Your task to perform on an android device: Go to Wikipedia Image 0: 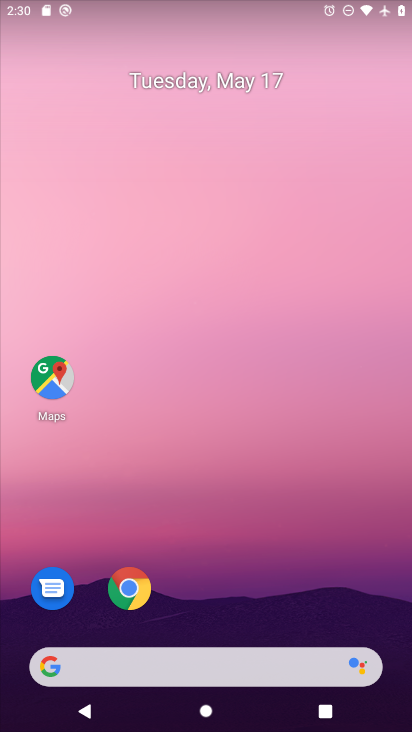
Step 0: click (136, 601)
Your task to perform on an android device: Go to Wikipedia Image 1: 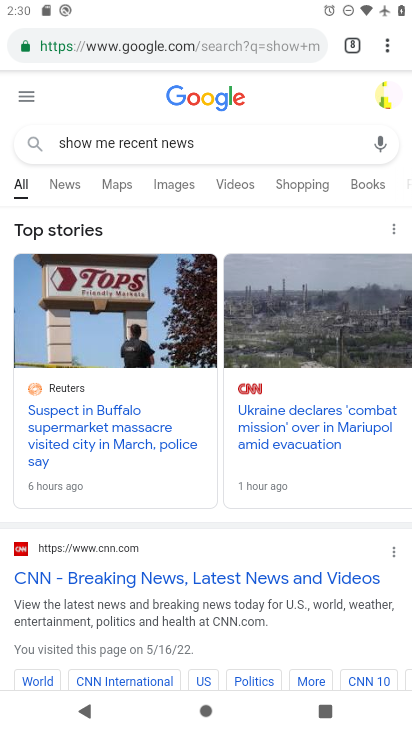
Step 1: click (347, 44)
Your task to perform on an android device: Go to Wikipedia Image 2: 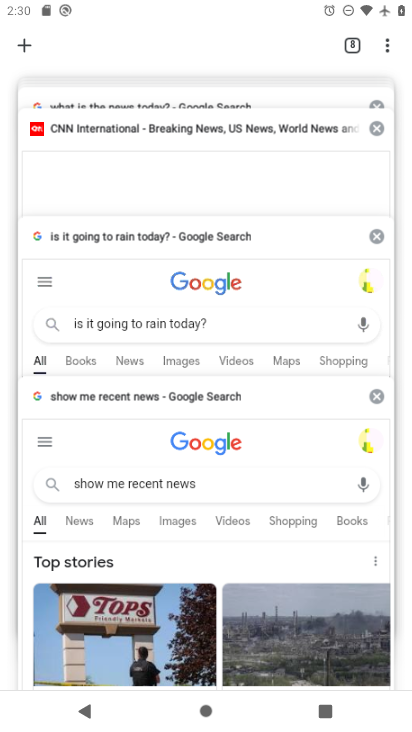
Step 2: drag from (135, 279) to (170, 528)
Your task to perform on an android device: Go to Wikipedia Image 3: 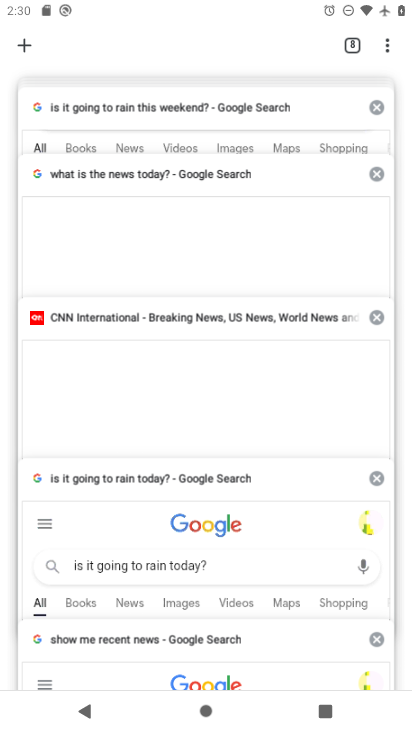
Step 3: drag from (170, 161) to (176, 496)
Your task to perform on an android device: Go to Wikipedia Image 4: 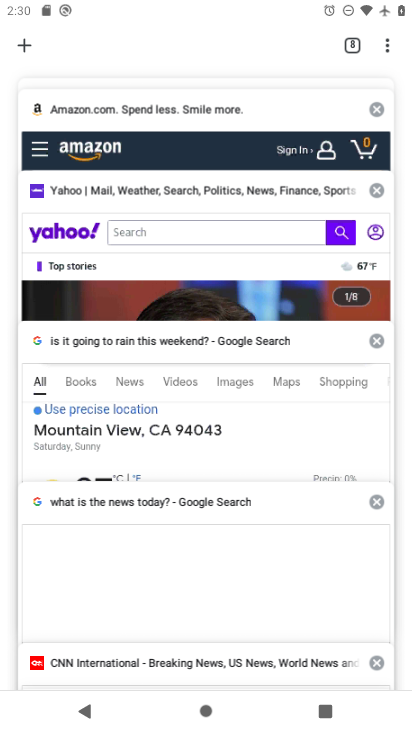
Step 4: drag from (157, 124) to (152, 421)
Your task to perform on an android device: Go to Wikipedia Image 5: 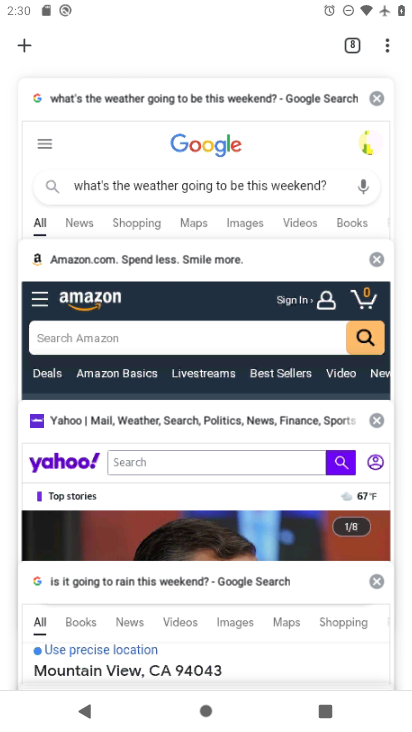
Step 5: click (26, 42)
Your task to perform on an android device: Go to Wikipedia Image 6: 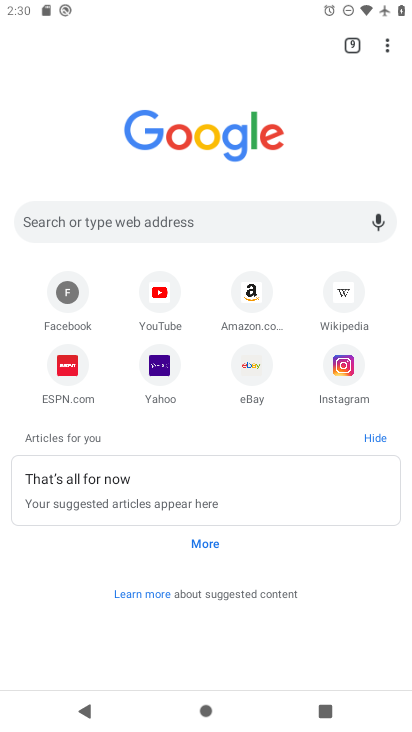
Step 6: click (327, 294)
Your task to perform on an android device: Go to Wikipedia Image 7: 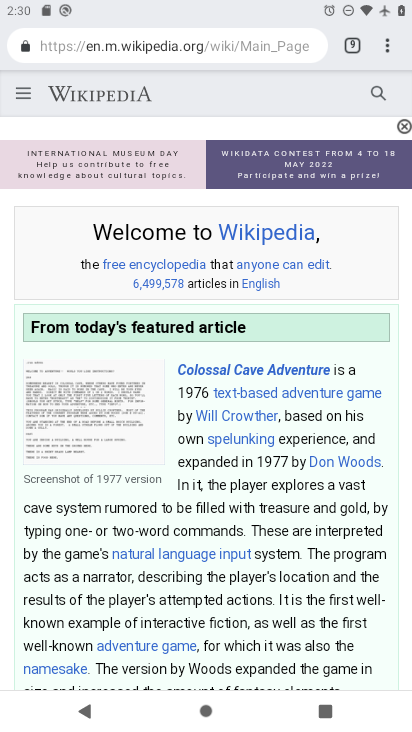
Step 7: task complete